Your task to perform on an android device: empty trash in google photos Image 0: 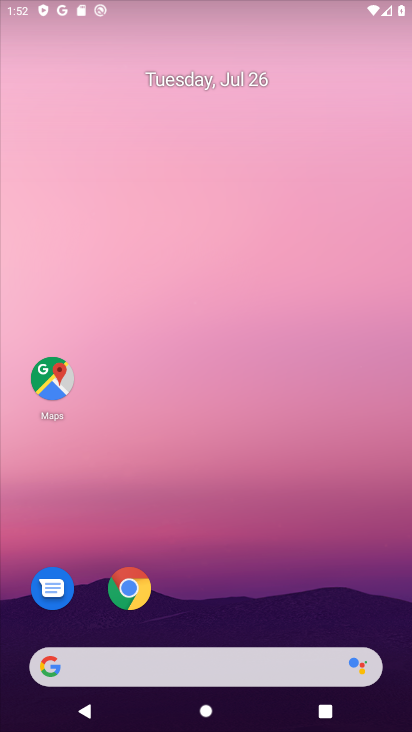
Step 0: drag from (337, 701) to (293, 192)
Your task to perform on an android device: empty trash in google photos Image 1: 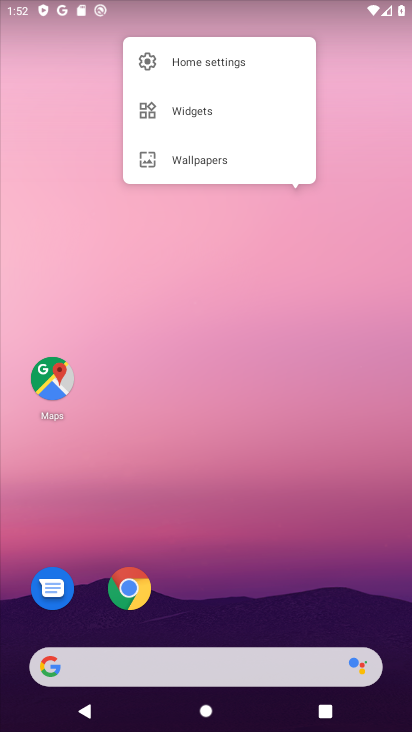
Step 1: drag from (352, 451) to (352, 307)
Your task to perform on an android device: empty trash in google photos Image 2: 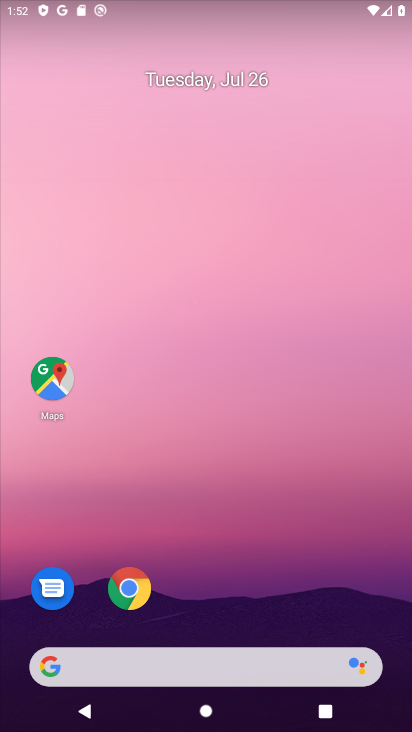
Step 2: drag from (250, 709) to (171, 311)
Your task to perform on an android device: empty trash in google photos Image 3: 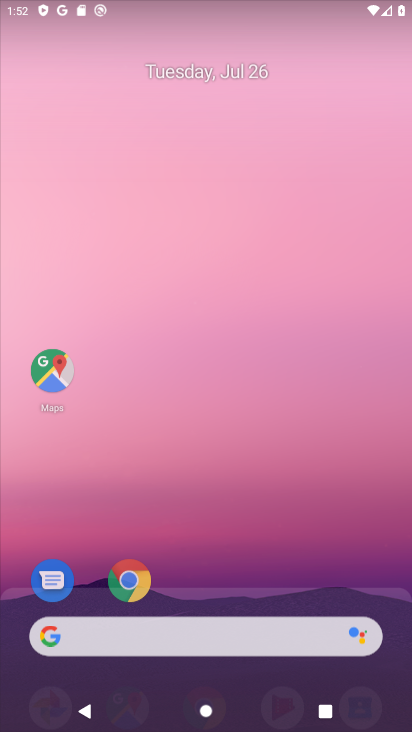
Step 3: drag from (269, 709) to (203, 258)
Your task to perform on an android device: empty trash in google photos Image 4: 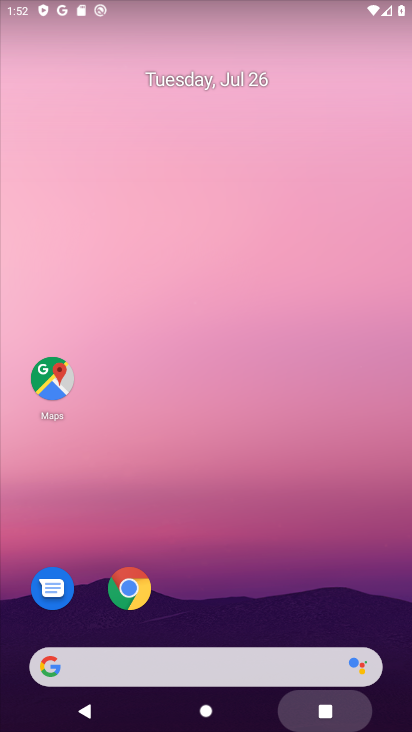
Step 4: drag from (243, 524) to (198, 176)
Your task to perform on an android device: empty trash in google photos Image 5: 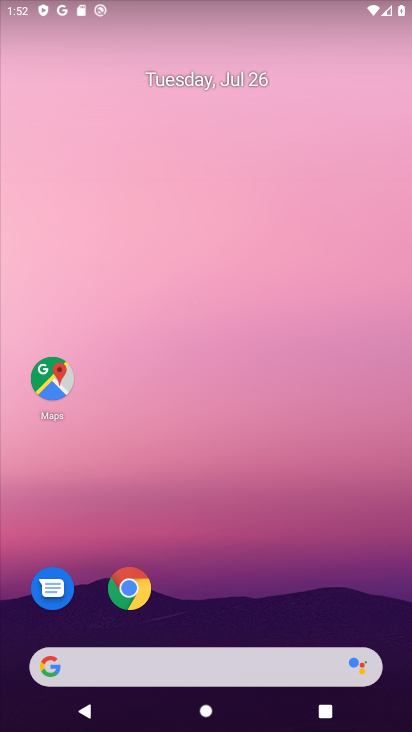
Step 5: drag from (269, 521) to (243, 271)
Your task to perform on an android device: empty trash in google photos Image 6: 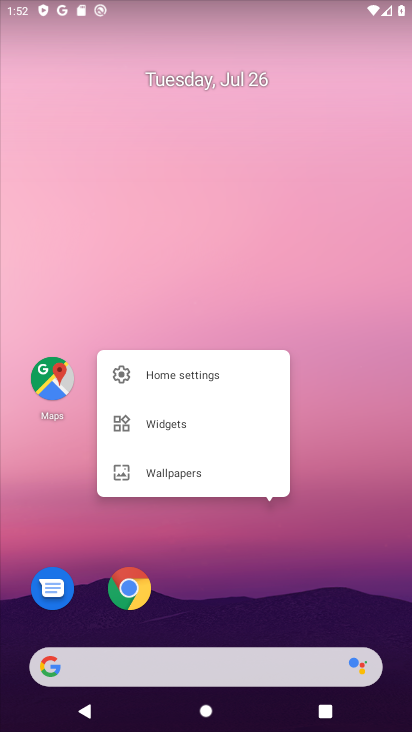
Step 6: drag from (256, 538) to (310, 157)
Your task to perform on an android device: empty trash in google photos Image 7: 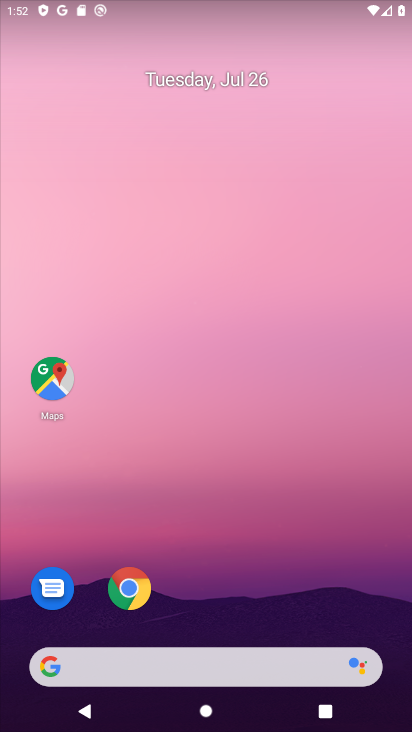
Step 7: drag from (304, 590) to (227, 262)
Your task to perform on an android device: empty trash in google photos Image 8: 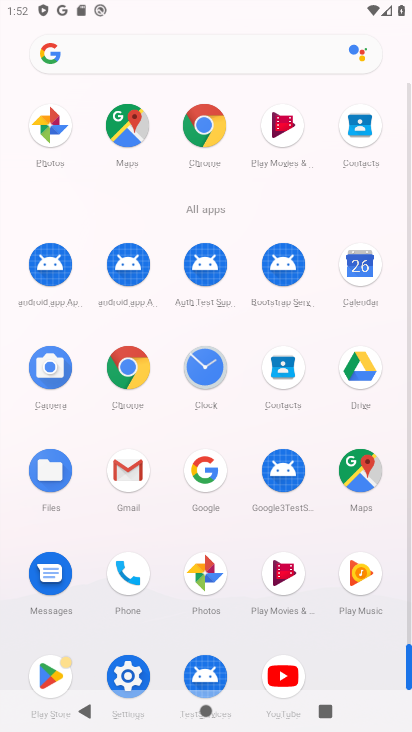
Step 8: click (194, 574)
Your task to perform on an android device: empty trash in google photos Image 9: 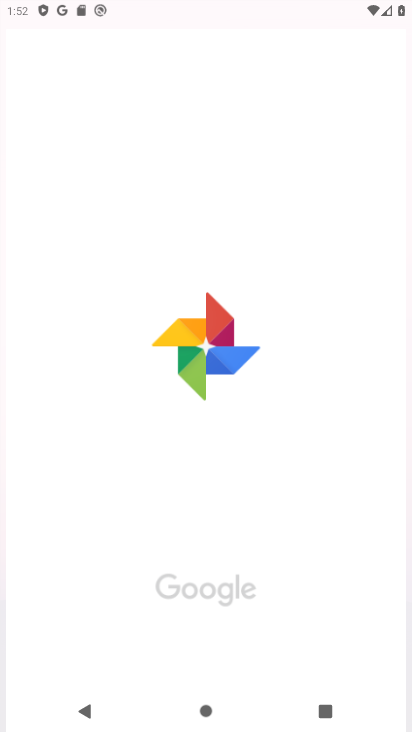
Step 9: click (206, 572)
Your task to perform on an android device: empty trash in google photos Image 10: 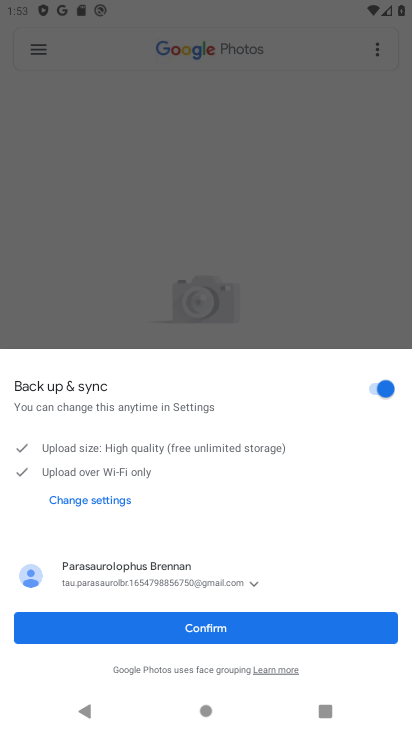
Step 10: click (201, 621)
Your task to perform on an android device: empty trash in google photos Image 11: 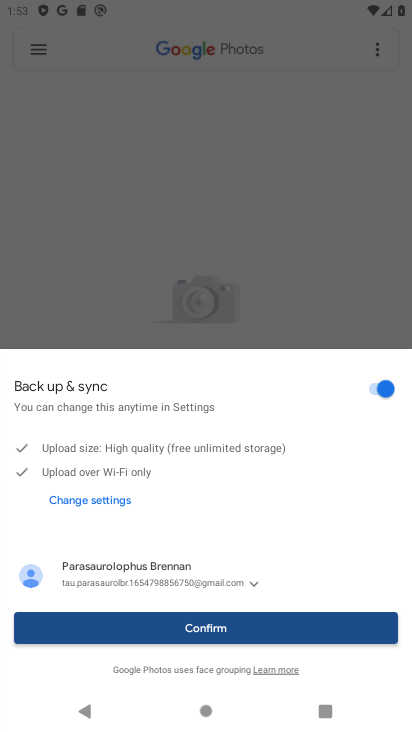
Step 11: click (201, 621)
Your task to perform on an android device: empty trash in google photos Image 12: 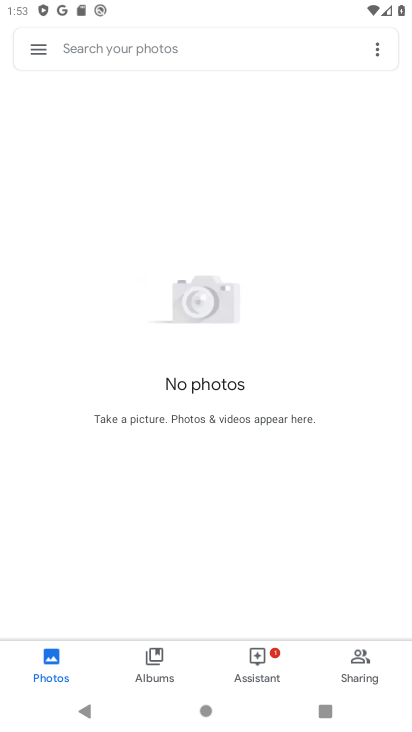
Step 12: click (50, 53)
Your task to perform on an android device: empty trash in google photos Image 13: 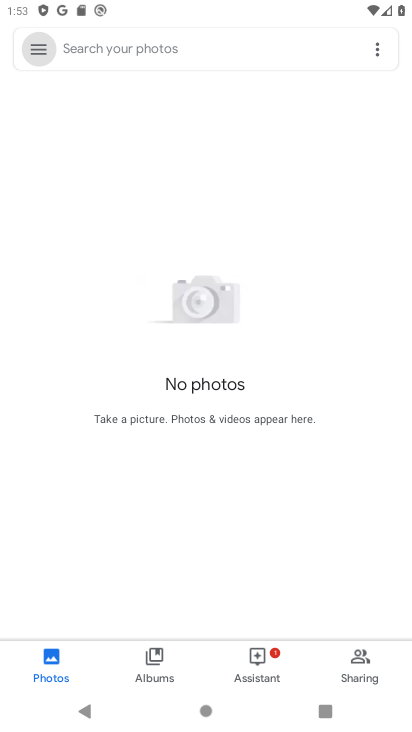
Step 13: click (50, 49)
Your task to perform on an android device: empty trash in google photos Image 14: 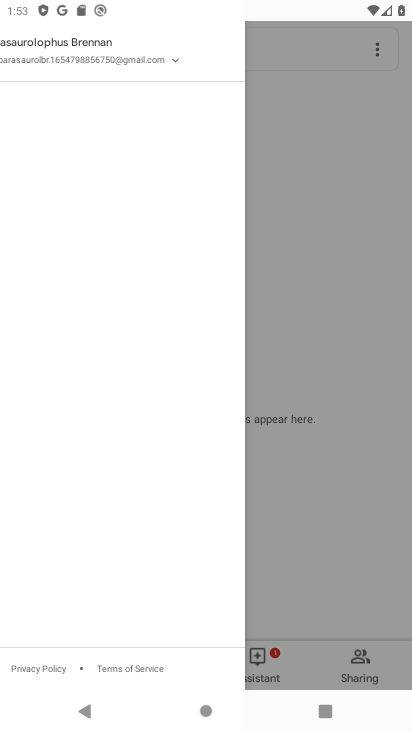
Step 14: click (50, 49)
Your task to perform on an android device: empty trash in google photos Image 15: 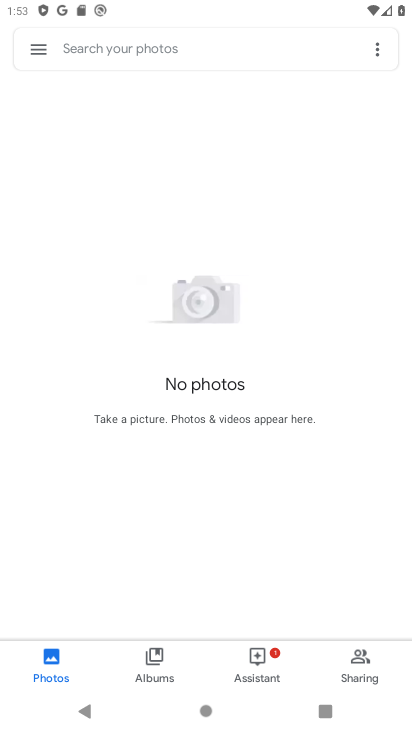
Step 15: click (51, 54)
Your task to perform on an android device: empty trash in google photos Image 16: 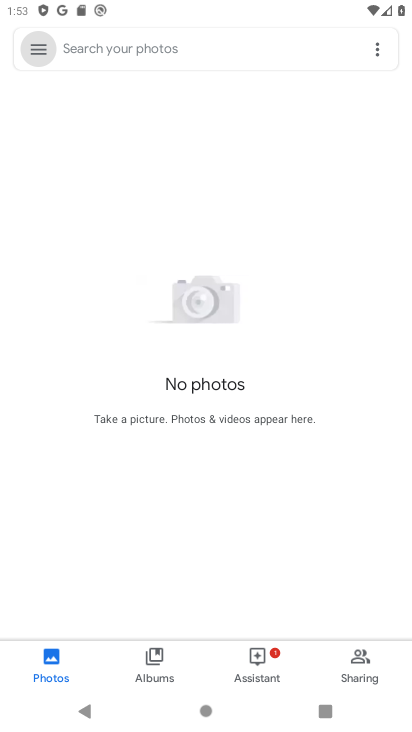
Step 16: click (53, 50)
Your task to perform on an android device: empty trash in google photos Image 17: 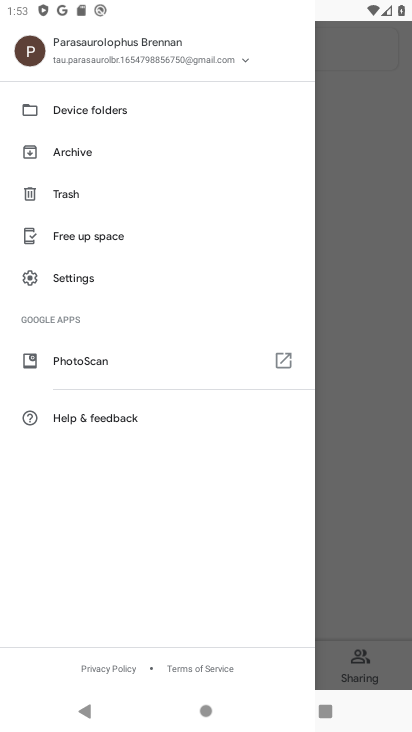
Step 17: click (67, 197)
Your task to perform on an android device: empty trash in google photos Image 18: 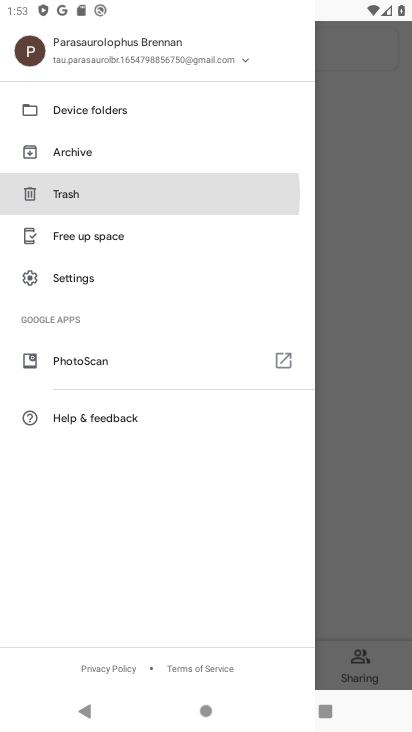
Step 18: click (68, 192)
Your task to perform on an android device: empty trash in google photos Image 19: 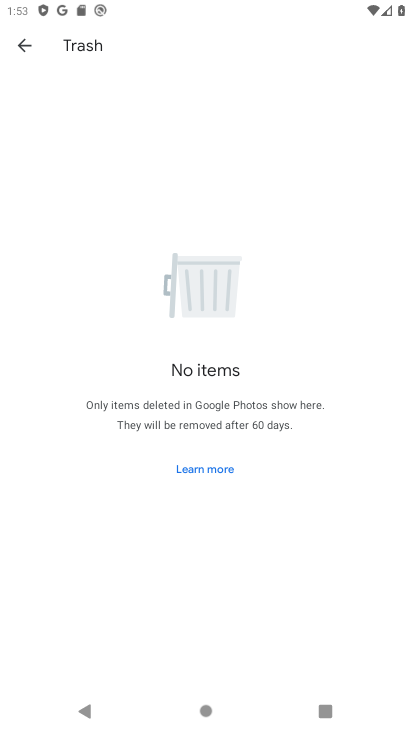
Step 19: task complete